Your task to perform on an android device: delete browsing data in the chrome app Image 0: 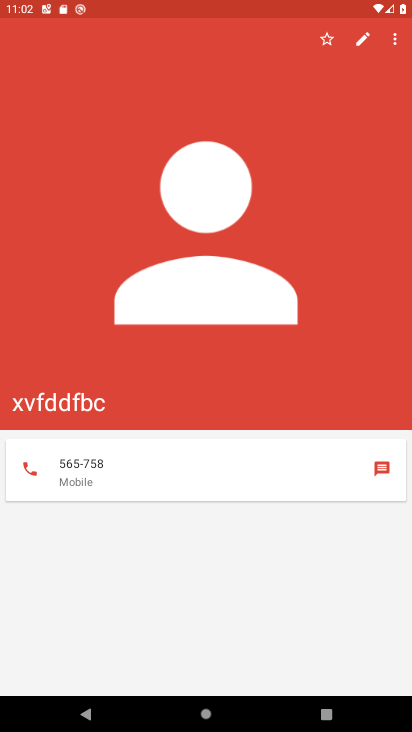
Step 0: press home button
Your task to perform on an android device: delete browsing data in the chrome app Image 1: 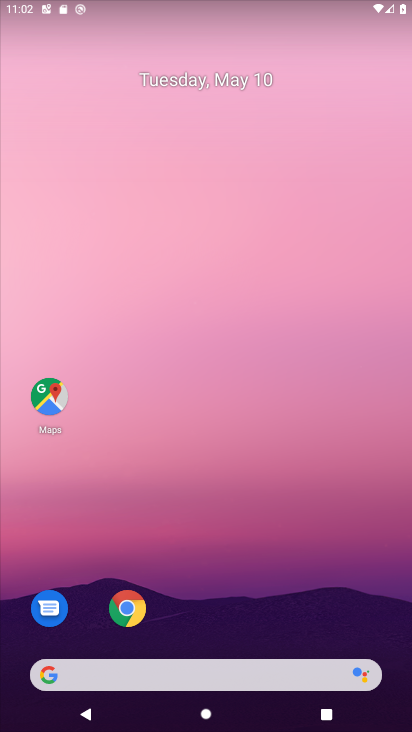
Step 1: click (140, 617)
Your task to perform on an android device: delete browsing data in the chrome app Image 2: 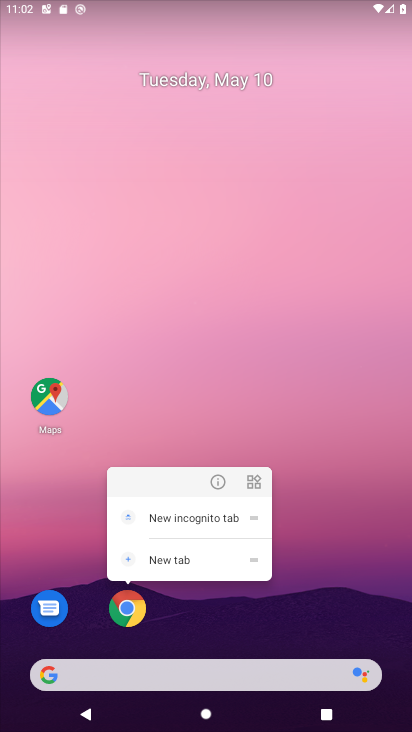
Step 2: click (137, 616)
Your task to perform on an android device: delete browsing data in the chrome app Image 3: 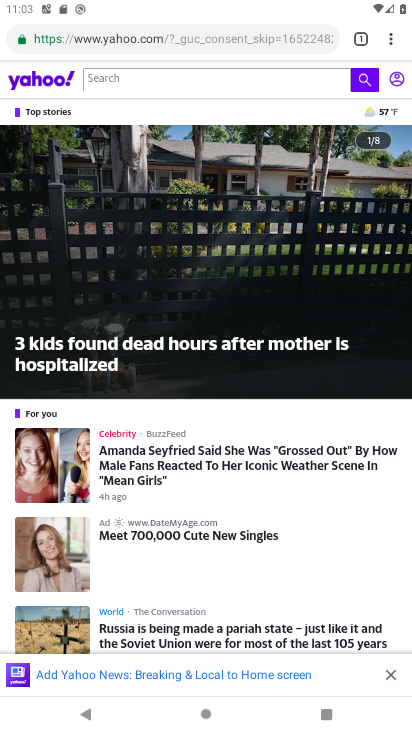
Step 3: drag from (388, 35) to (260, 273)
Your task to perform on an android device: delete browsing data in the chrome app Image 4: 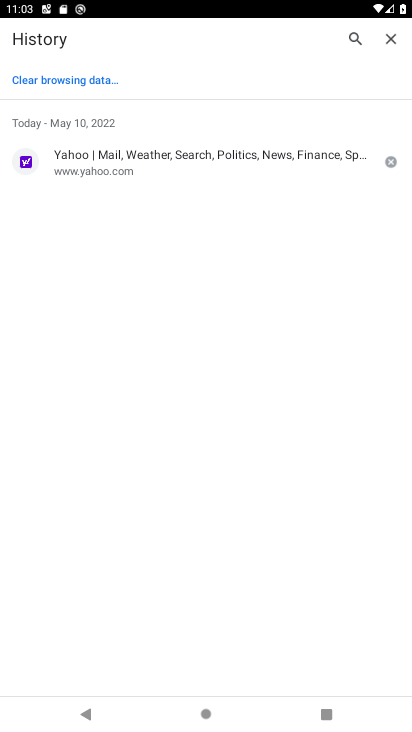
Step 4: click (56, 83)
Your task to perform on an android device: delete browsing data in the chrome app Image 5: 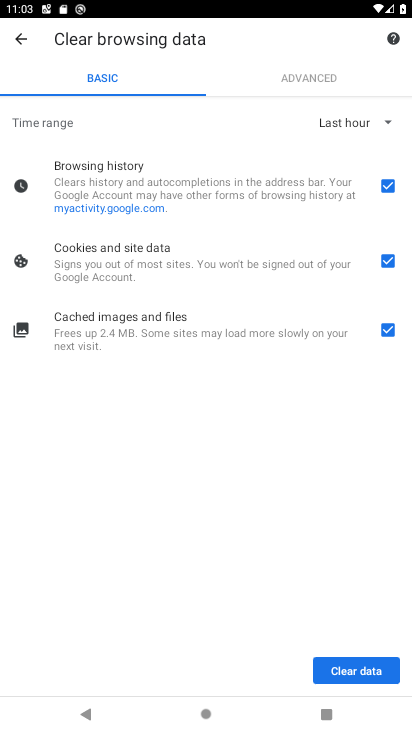
Step 5: click (389, 669)
Your task to perform on an android device: delete browsing data in the chrome app Image 6: 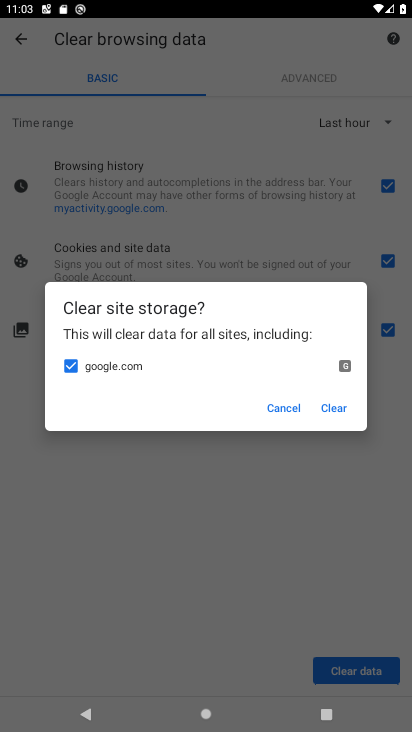
Step 6: click (326, 410)
Your task to perform on an android device: delete browsing data in the chrome app Image 7: 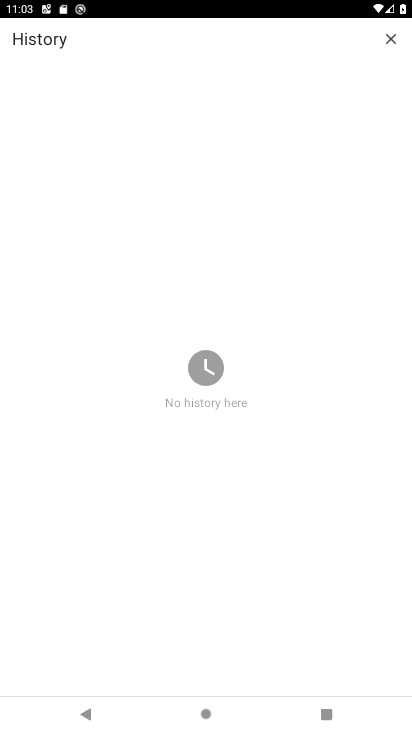
Step 7: task complete